Your task to perform on an android device: Open location settings Image 0: 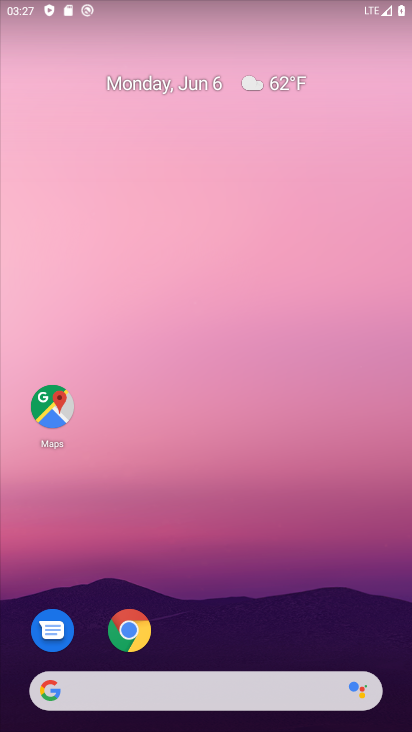
Step 0: press home button
Your task to perform on an android device: Open location settings Image 1: 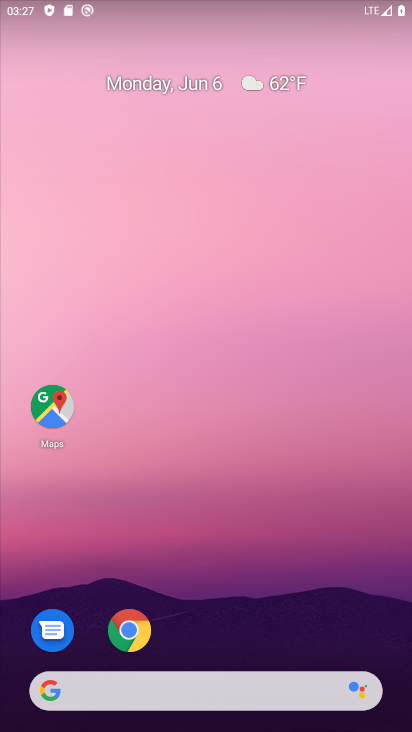
Step 1: drag from (265, 620) to (0, 10)
Your task to perform on an android device: Open location settings Image 2: 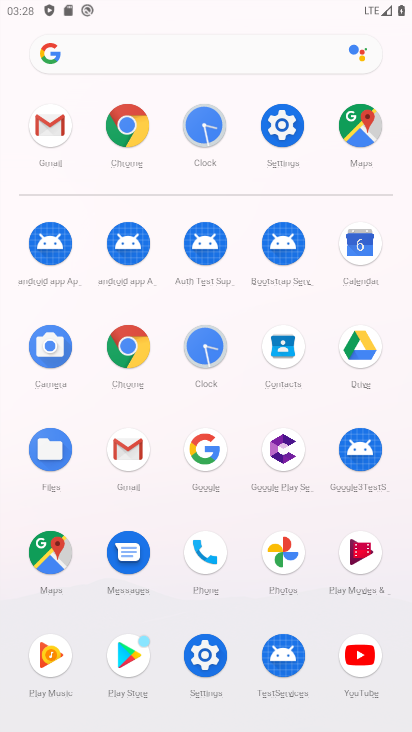
Step 2: click (287, 130)
Your task to perform on an android device: Open location settings Image 3: 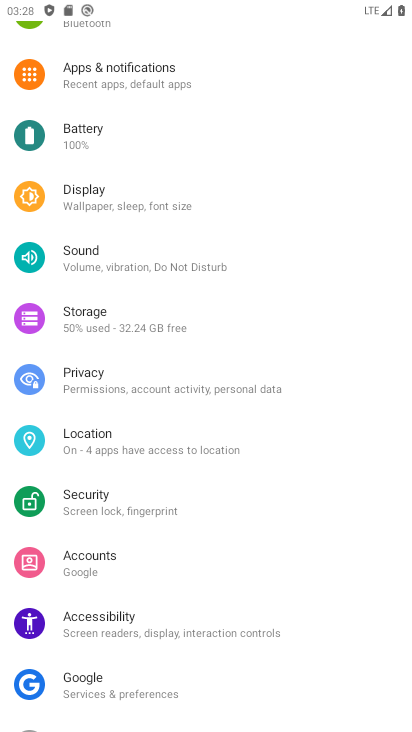
Step 3: click (114, 440)
Your task to perform on an android device: Open location settings Image 4: 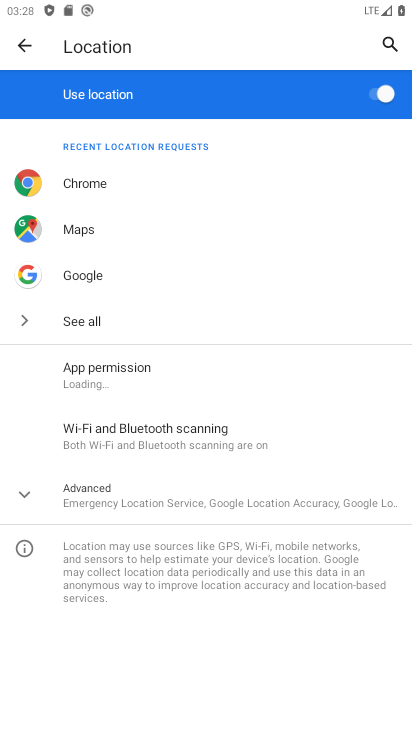
Step 4: task complete